Your task to perform on an android device: toggle sleep mode Image 0: 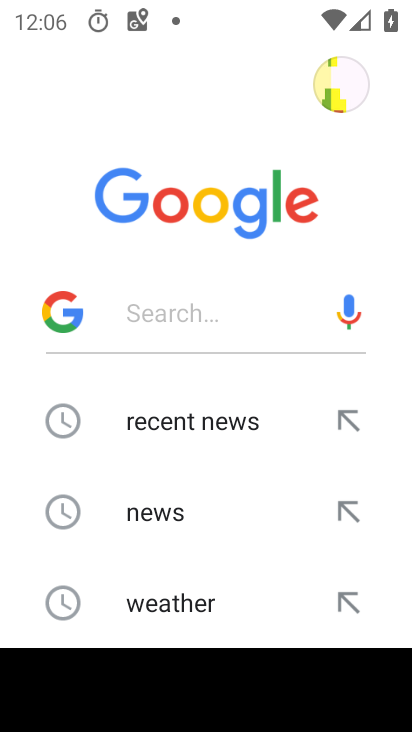
Step 0: press home button
Your task to perform on an android device: toggle sleep mode Image 1: 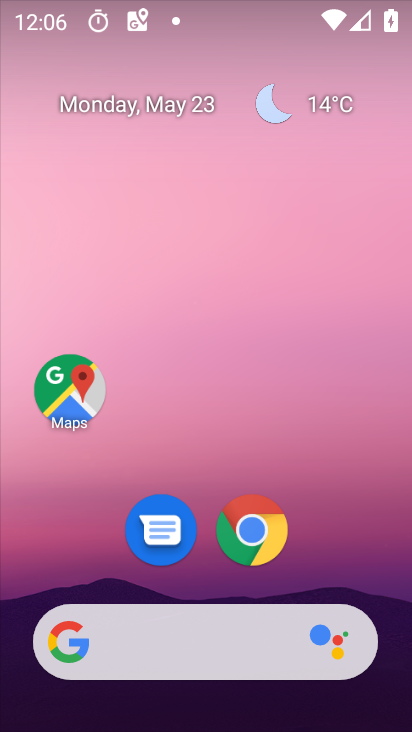
Step 1: drag from (393, 711) to (368, 301)
Your task to perform on an android device: toggle sleep mode Image 2: 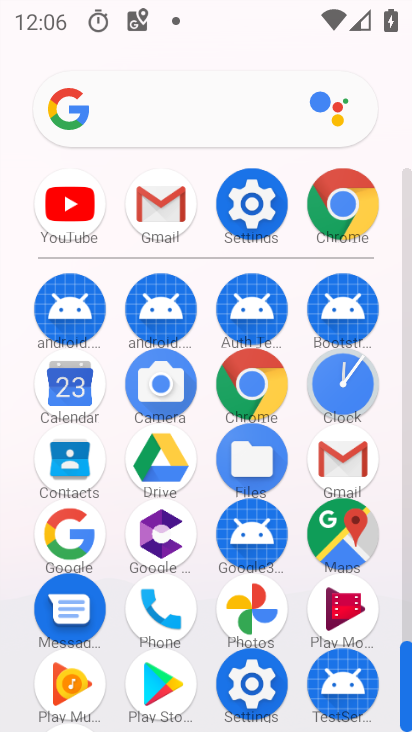
Step 2: click (250, 677)
Your task to perform on an android device: toggle sleep mode Image 3: 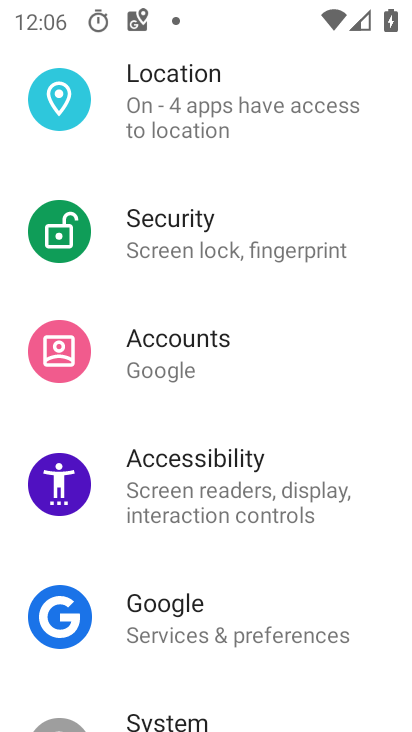
Step 3: drag from (340, 677) to (299, 331)
Your task to perform on an android device: toggle sleep mode Image 4: 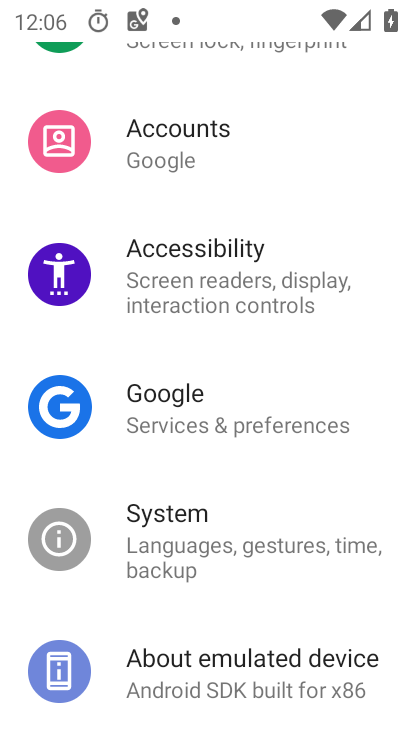
Step 4: drag from (310, 613) to (314, 288)
Your task to perform on an android device: toggle sleep mode Image 5: 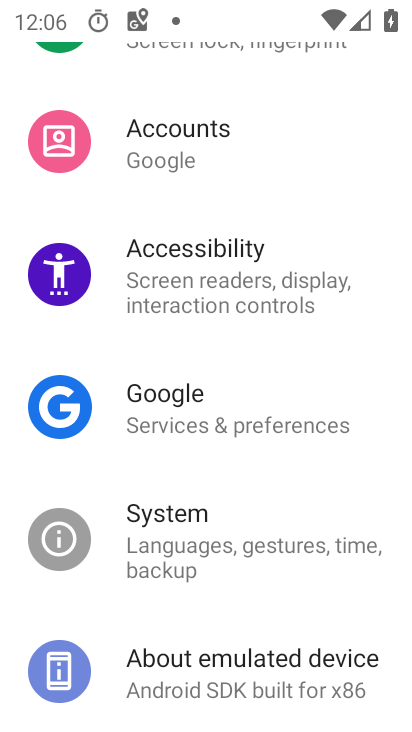
Step 5: drag from (314, 115) to (382, 576)
Your task to perform on an android device: toggle sleep mode Image 6: 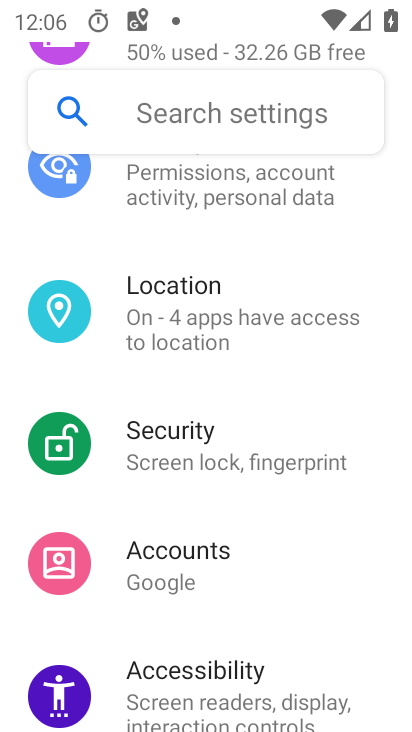
Step 6: drag from (324, 227) to (353, 618)
Your task to perform on an android device: toggle sleep mode Image 7: 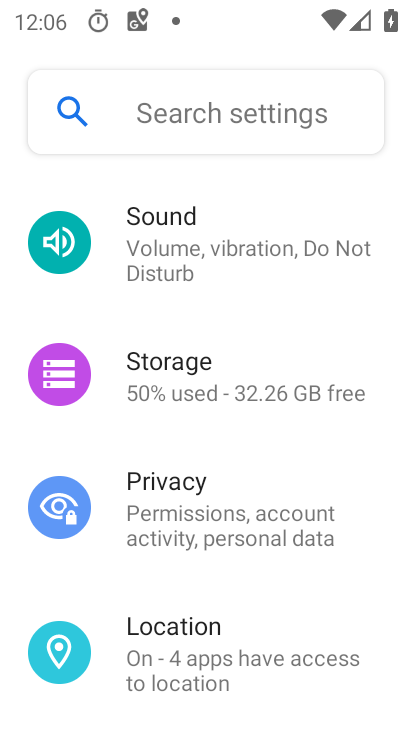
Step 7: drag from (254, 202) to (308, 495)
Your task to perform on an android device: toggle sleep mode Image 8: 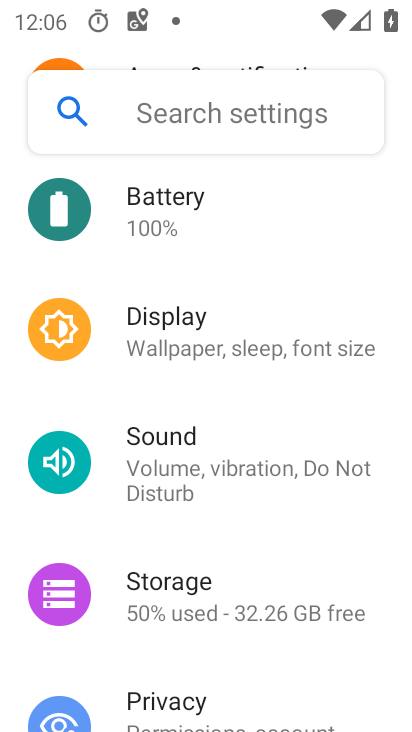
Step 8: click (177, 326)
Your task to perform on an android device: toggle sleep mode Image 9: 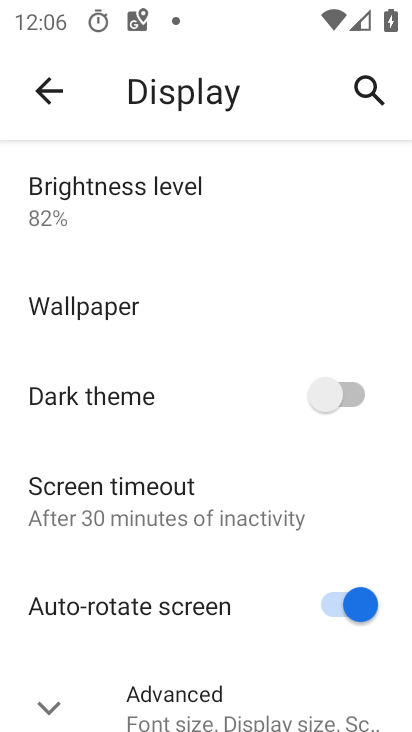
Step 9: click (145, 481)
Your task to perform on an android device: toggle sleep mode Image 10: 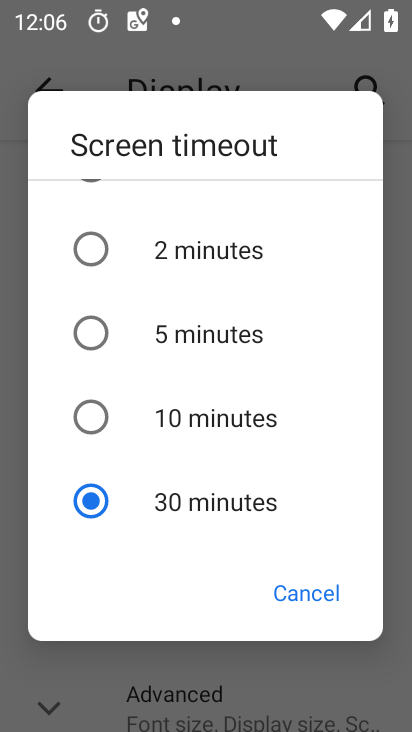
Step 10: click (93, 410)
Your task to perform on an android device: toggle sleep mode Image 11: 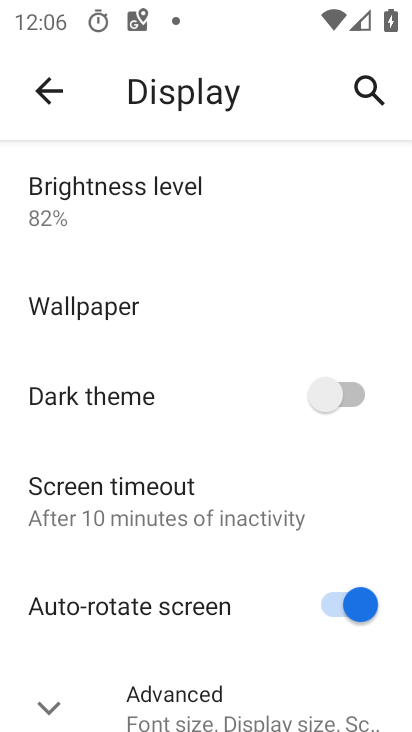
Step 11: task complete